Your task to perform on an android device: allow cookies in the chrome app Image 0: 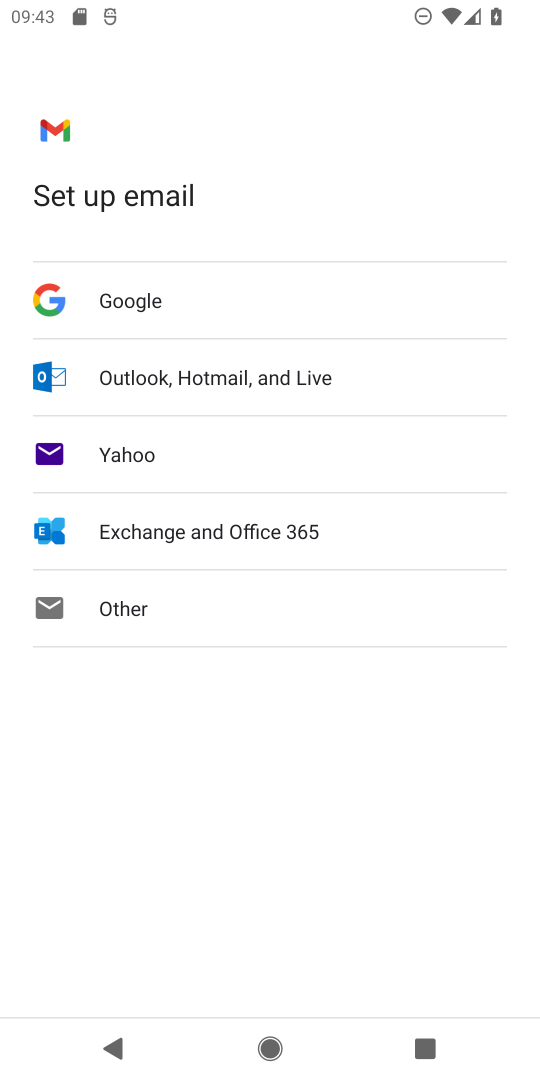
Step 0: press home button
Your task to perform on an android device: allow cookies in the chrome app Image 1: 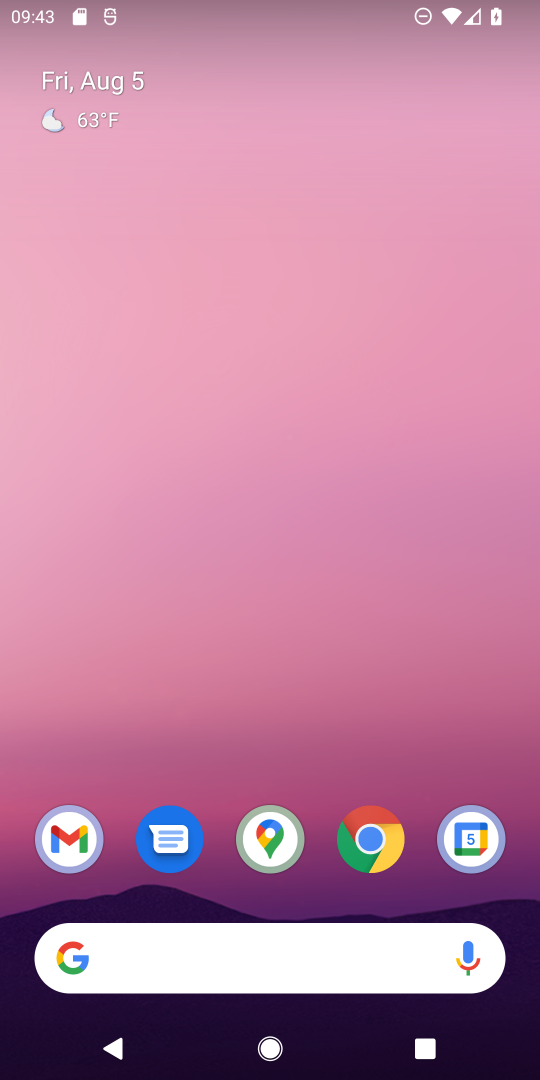
Step 1: drag from (315, 577) to (353, 6)
Your task to perform on an android device: allow cookies in the chrome app Image 2: 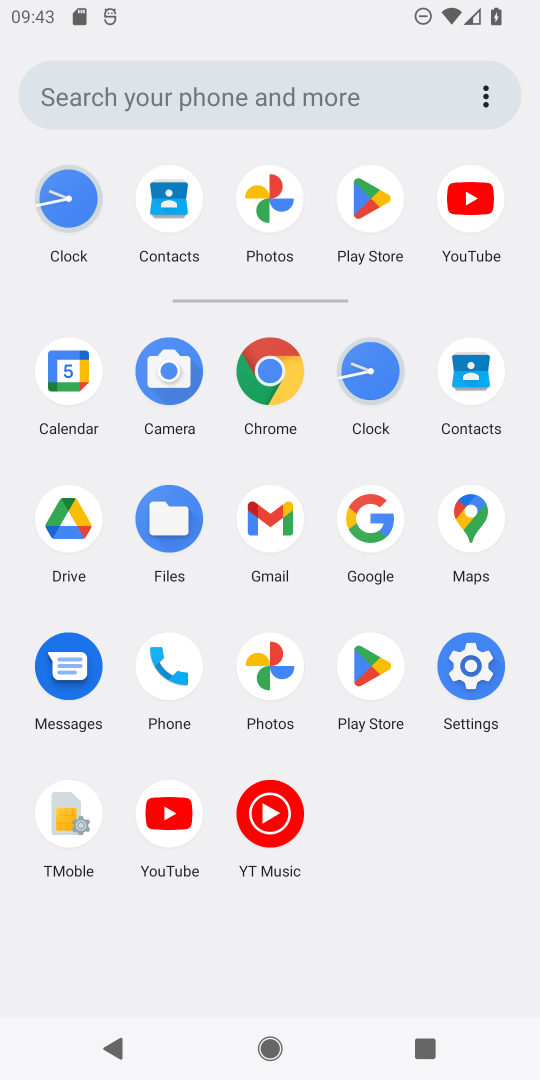
Step 2: click (263, 373)
Your task to perform on an android device: allow cookies in the chrome app Image 3: 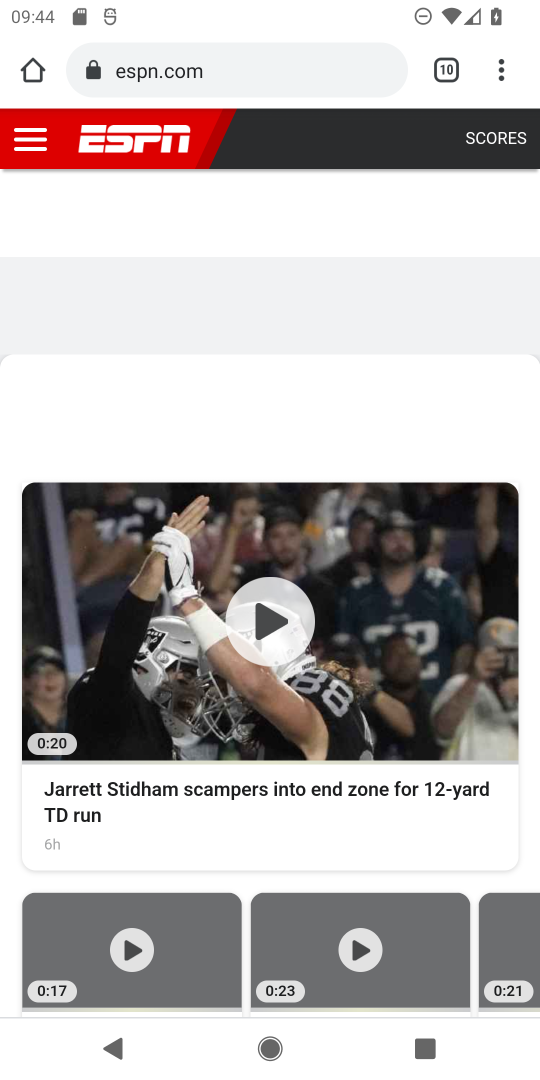
Step 3: click (502, 80)
Your task to perform on an android device: allow cookies in the chrome app Image 4: 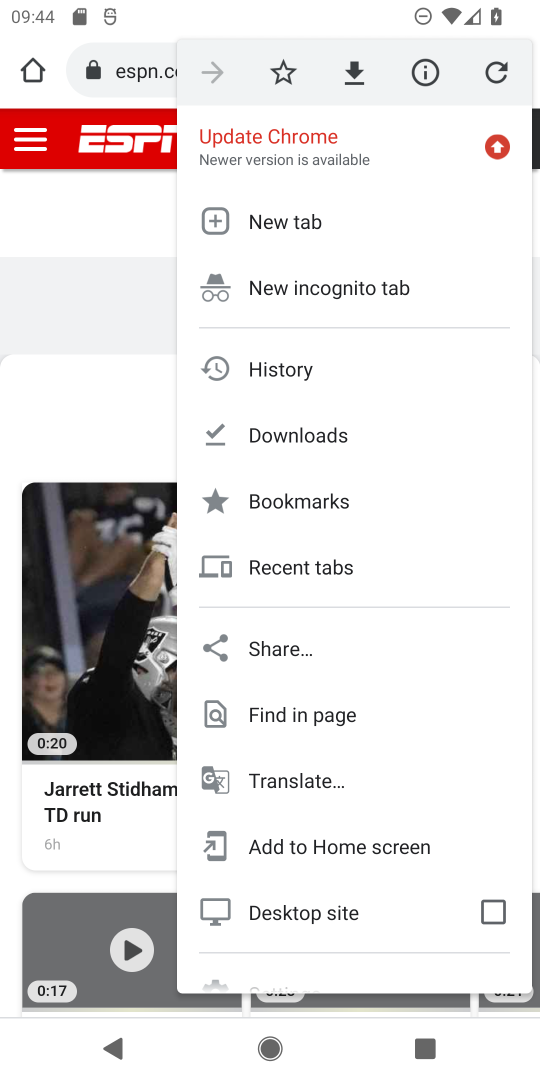
Step 4: drag from (296, 866) to (296, 506)
Your task to perform on an android device: allow cookies in the chrome app Image 5: 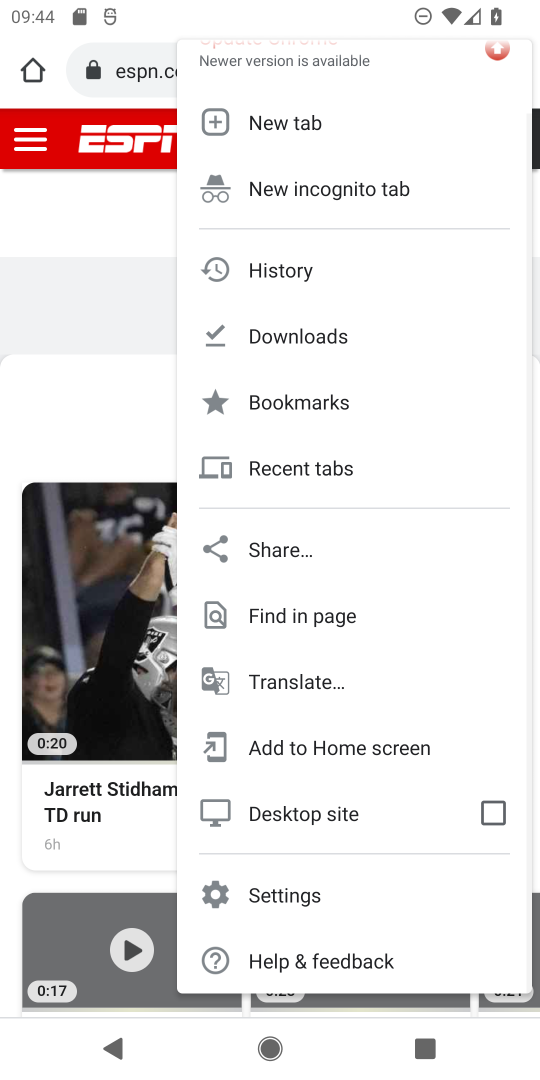
Step 5: click (276, 891)
Your task to perform on an android device: allow cookies in the chrome app Image 6: 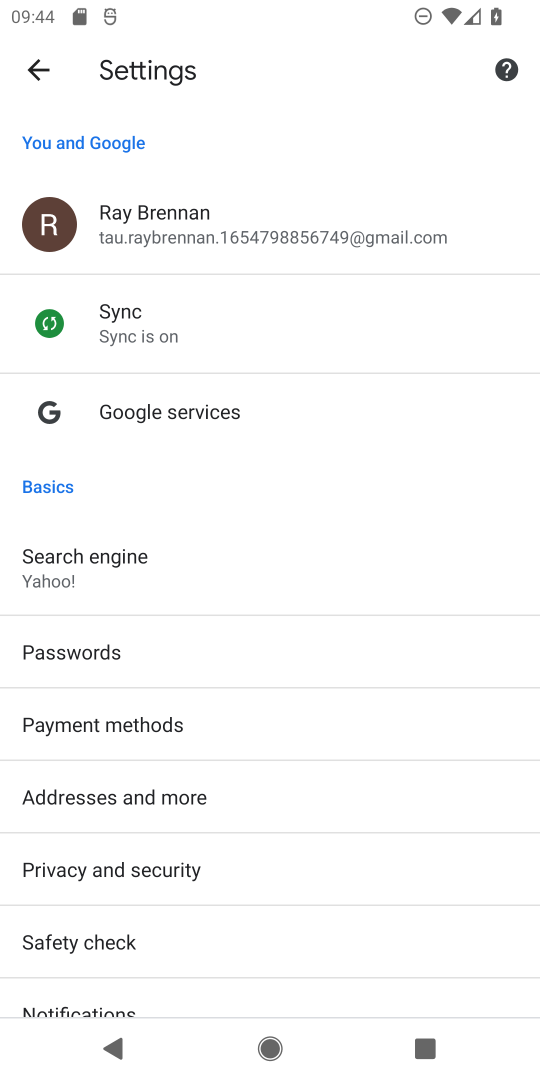
Step 6: drag from (239, 839) to (241, 482)
Your task to perform on an android device: allow cookies in the chrome app Image 7: 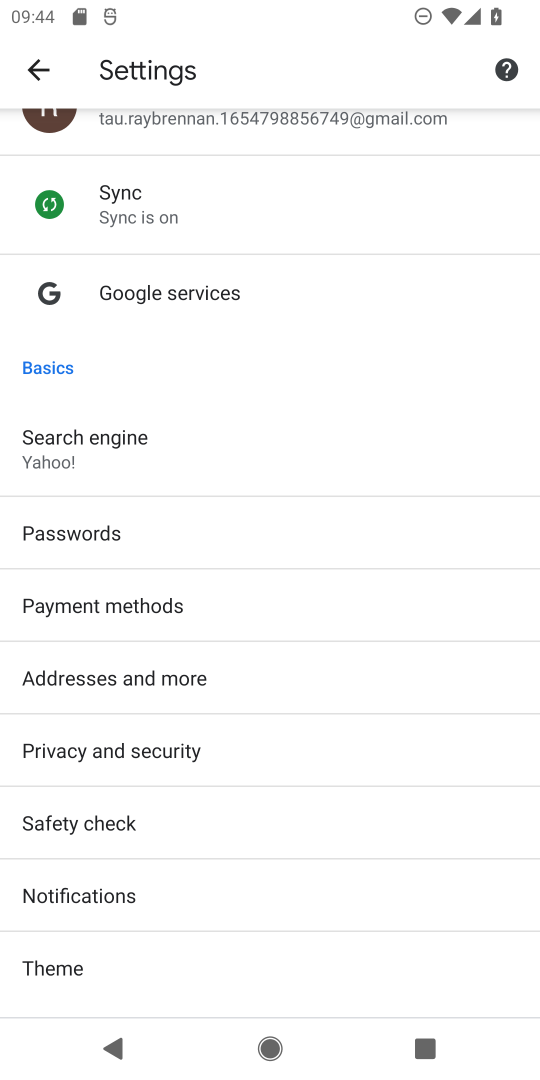
Step 7: drag from (111, 831) to (108, 414)
Your task to perform on an android device: allow cookies in the chrome app Image 8: 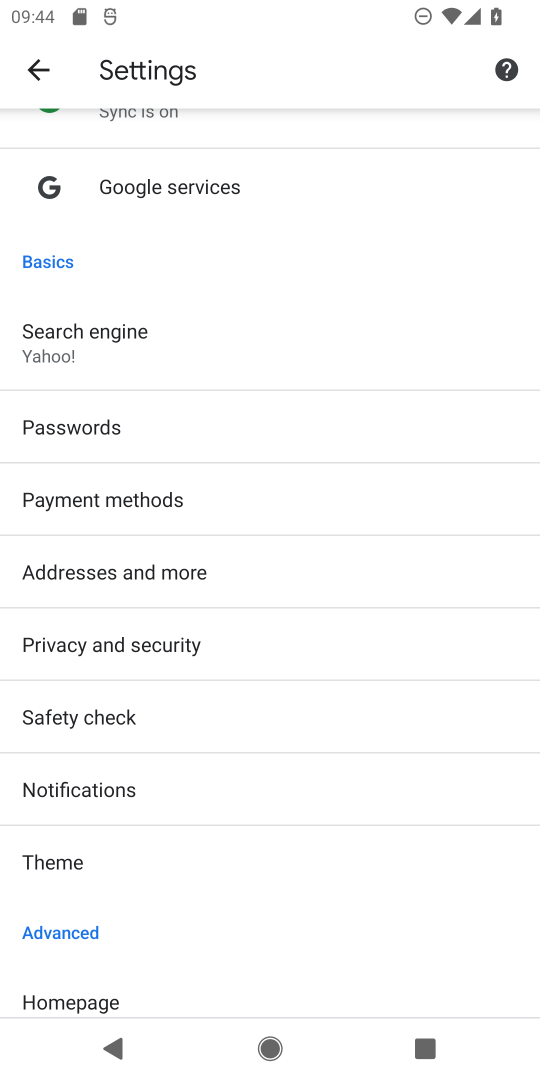
Step 8: drag from (70, 951) to (90, 442)
Your task to perform on an android device: allow cookies in the chrome app Image 9: 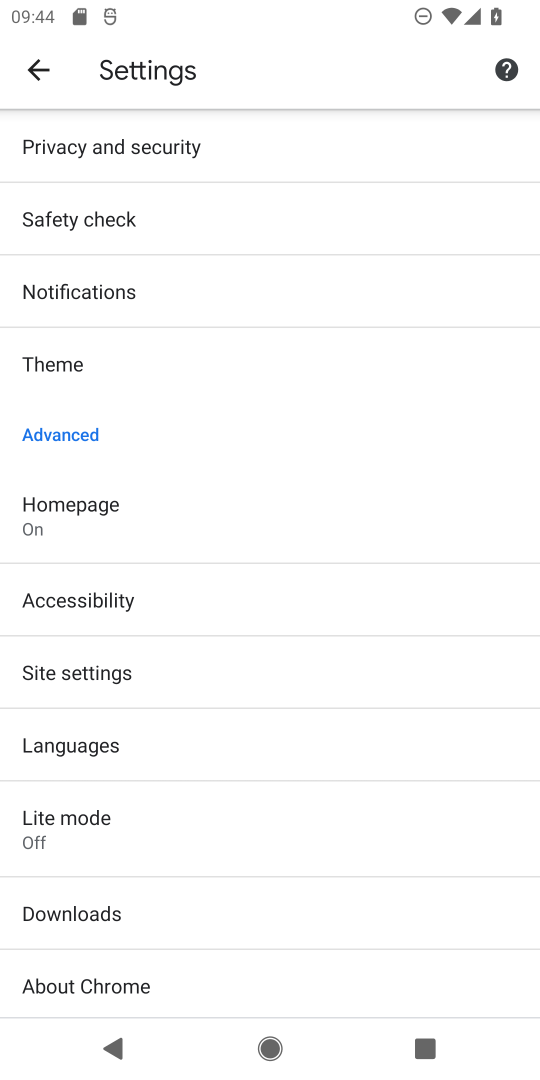
Step 9: click (105, 669)
Your task to perform on an android device: allow cookies in the chrome app Image 10: 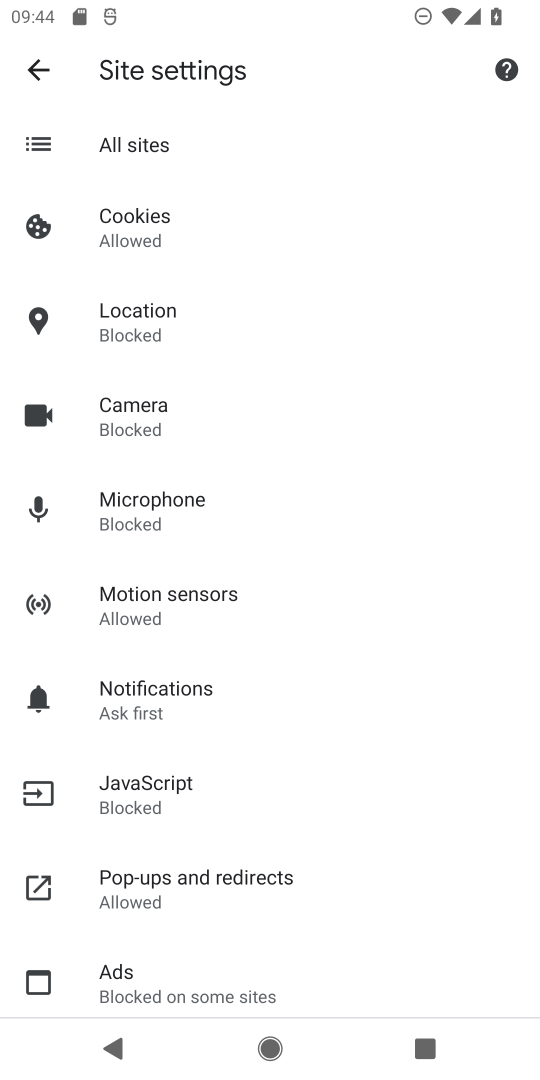
Step 10: click (135, 222)
Your task to perform on an android device: allow cookies in the chrome app Image 11: 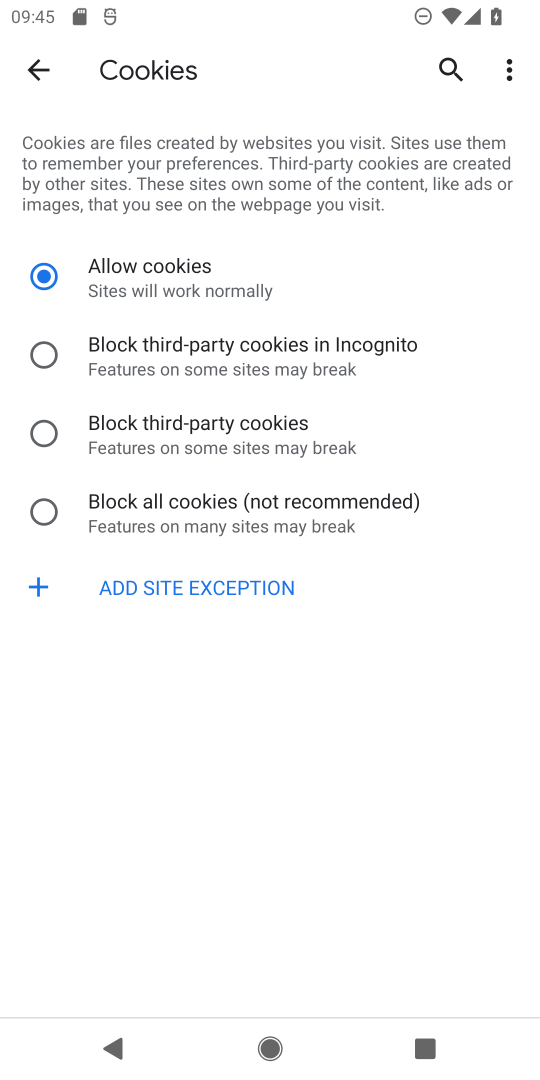
Step 11: task complete